Your task to perform on an android device: check storage Image 0: 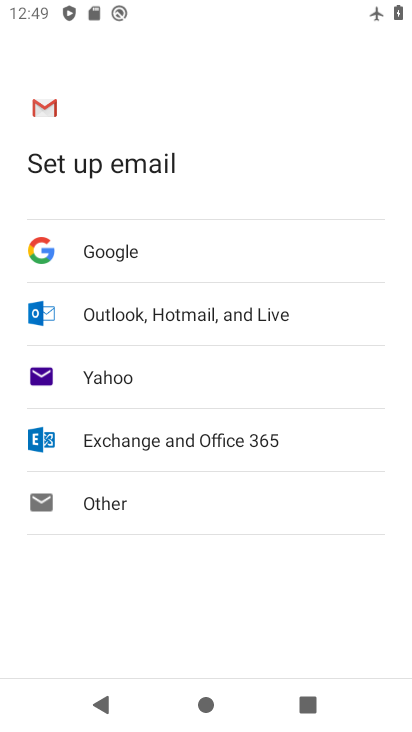
Step 0: press home button
Your task to perform on an android device: check storage Image 1: 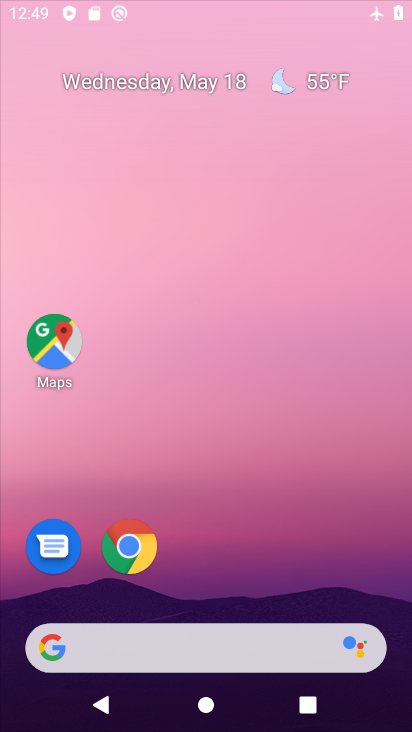
Step 1: drag from (343, 604) to (340, 167)
Your task to perform on an android device: check storage Image 2: 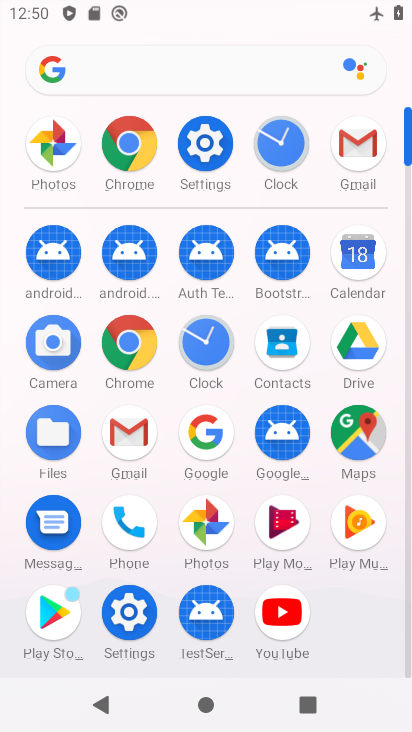
Step 2: click (124, 605)
Your task to perform on an android device: check storage Image 3: 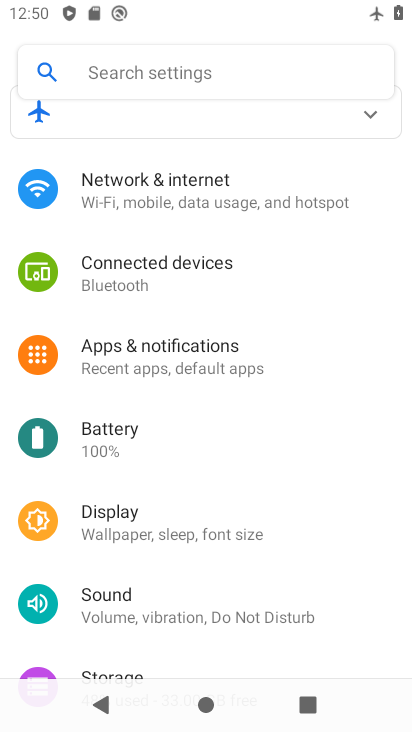
Step 3: drag from (145, 590) to (188, 410)
Your task to perform on an android device: check storage Image 4: 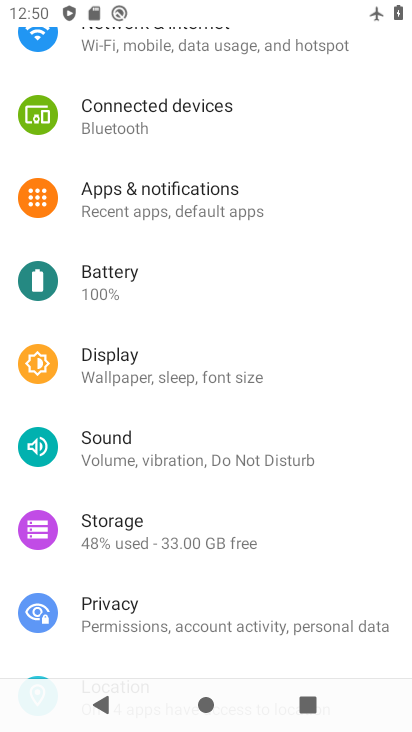
Step 4: click (166, 515)
Your task to perform on an android device: check storage Image 5: 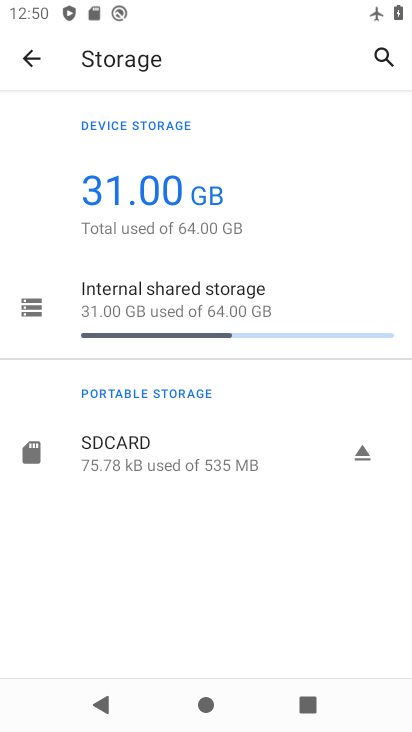
Step 5: click (32, 311)
Your task to perform on an android device: check storage Image 6: 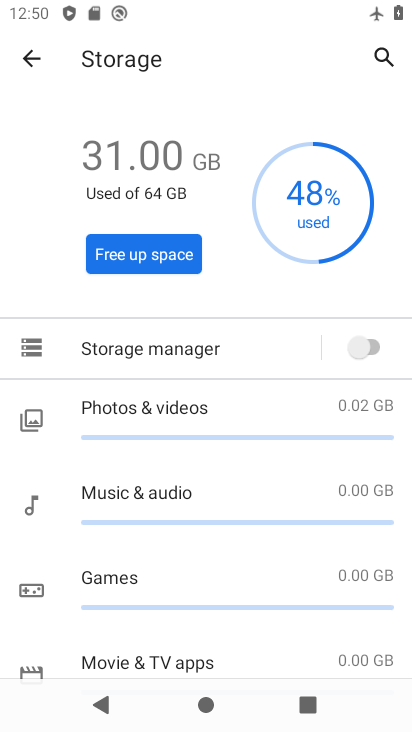
Step 6: task complete